Your task to perform on an android device: Toggle the flashlight Image 0: 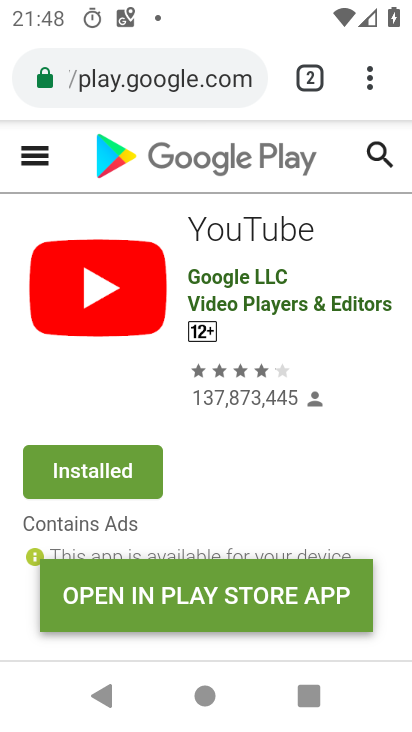
Step 0: press home button
Your task to perform on an android device: Toggle the flashlight Image 1: 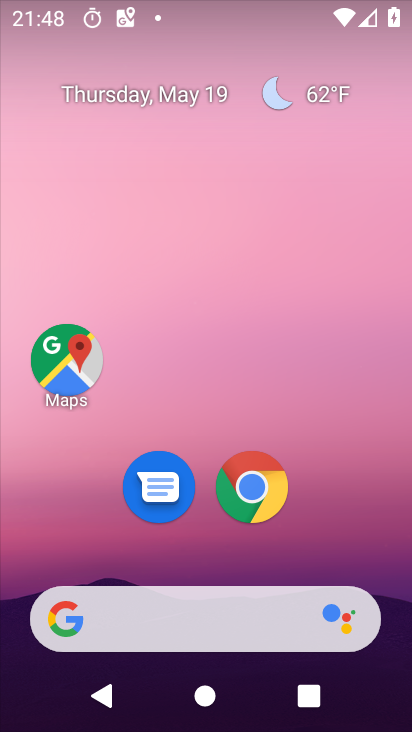
Step 1: drag from (293, 550) to (244, 69)
Your task to perform on an android device: Toggle the flashlight Image 2: 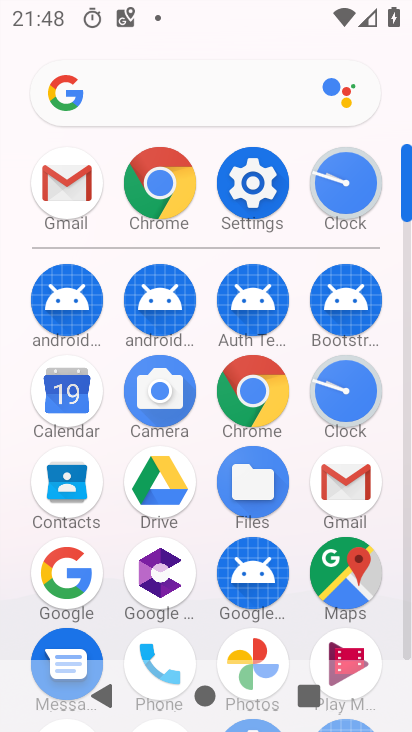
Step 2: click (247, 194)
Your task to perform on an android device: Toggle the flashlight Image 3: 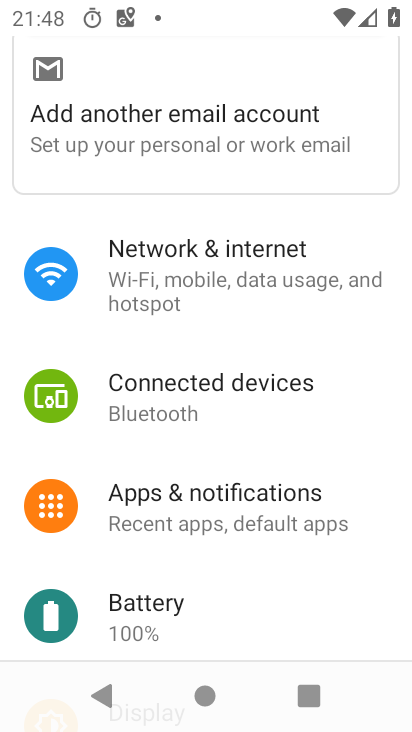
Step 3: click (260, 529)
Your task to perform on an android device: Toggle the flashlight Image 4: 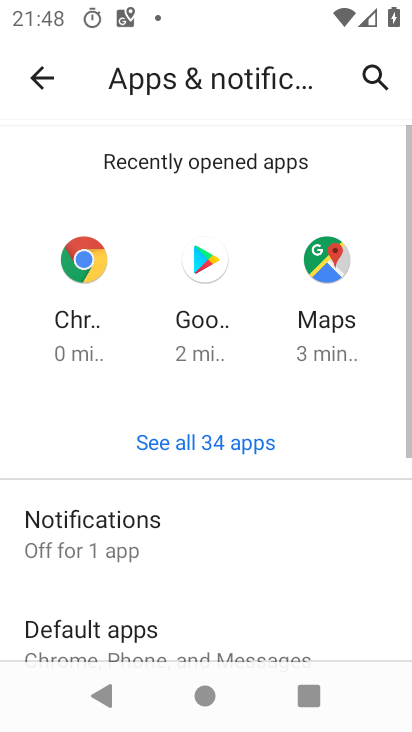
Step 4: drag from (288, 611) to (266, 304)
Your task to perform on an android device: Toggle the flashlight Image 5: 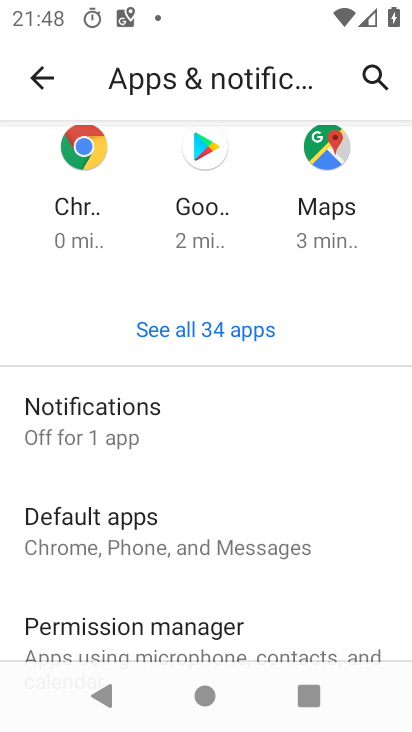
Step 5: drag from (306, 623) to (286, 242)
Your task to perform on an android device: Toggle the flashlight Image 6: 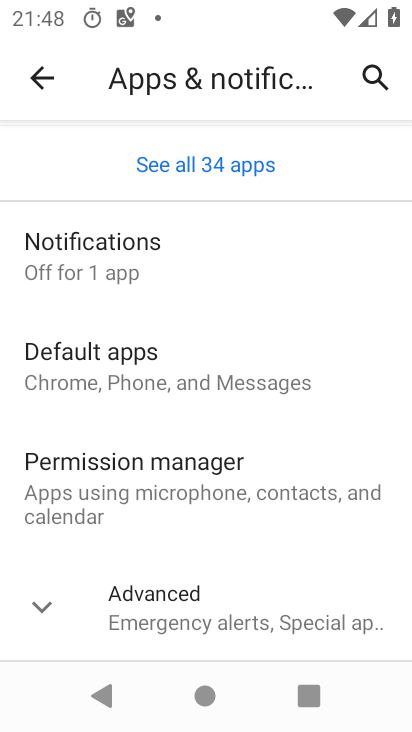
Step 6: click (248, 607)
Your task to perform on an android device: Toggle the flashlight Image 7: 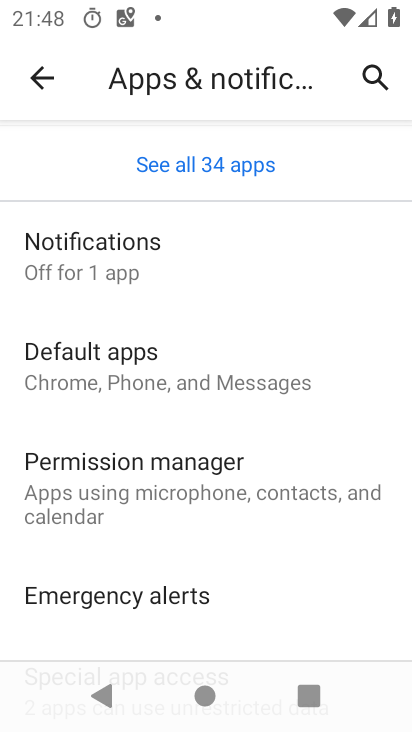
Step 7: drag from (293, 607) to (260, 256)
Your task to perform on an android device: Toggle the flashlight Image 8: 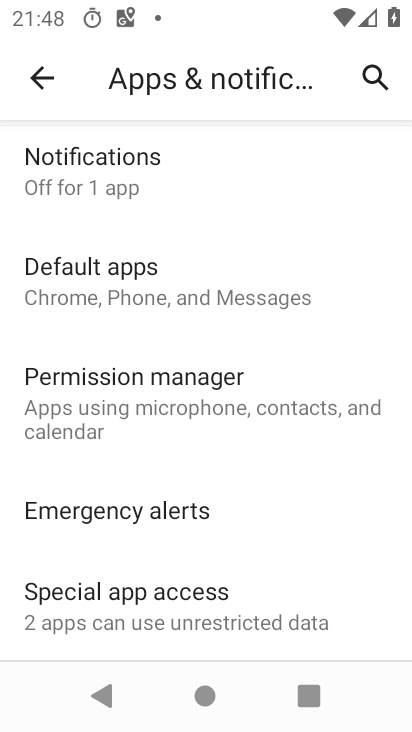
Step 8: click (264, 619)
Your task to perform on an android device: Toggle the flashlight Image 9: 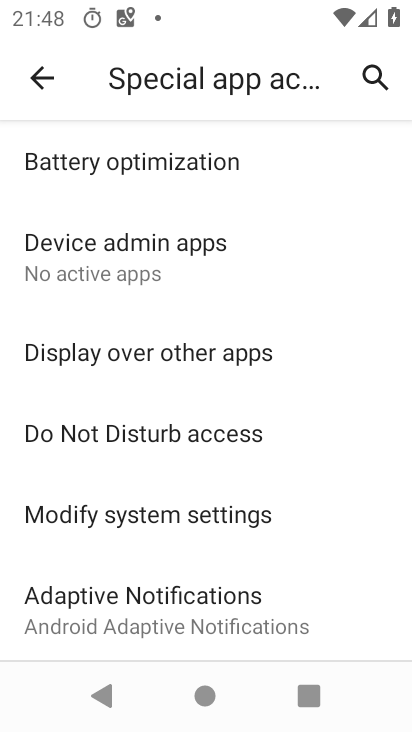
Step 9: task complete